Your task to perform on an android device: allow cookies in the chrome app Image 0: 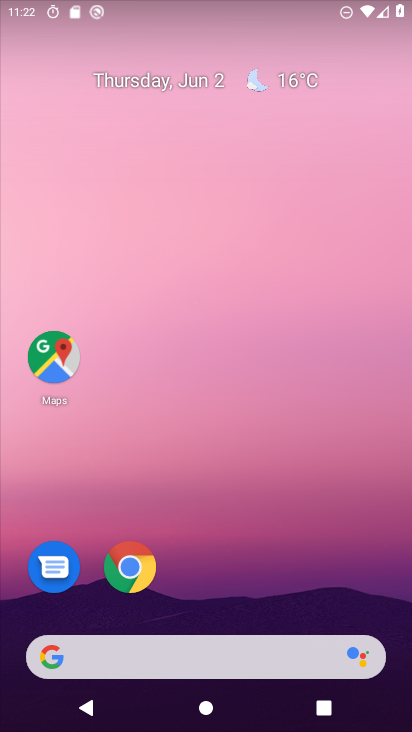
Step 0: click (130, 574)
Your task to perform on an android device: allow cookies in the chrome app Image 1: 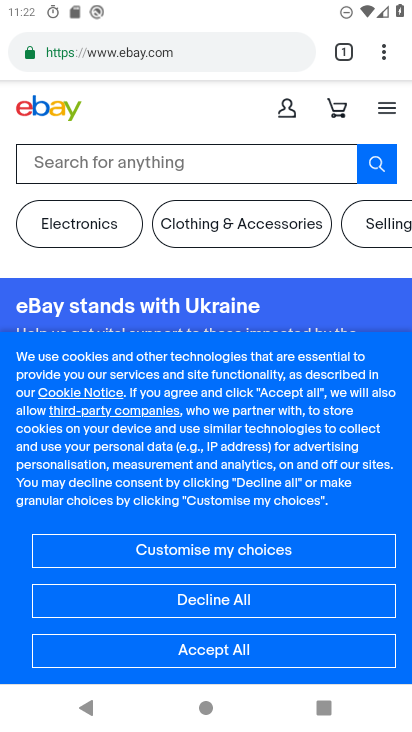
Step 1: click (379, 57)
Your task to perform on an android device: allow cookies in the chrome app Image 2: 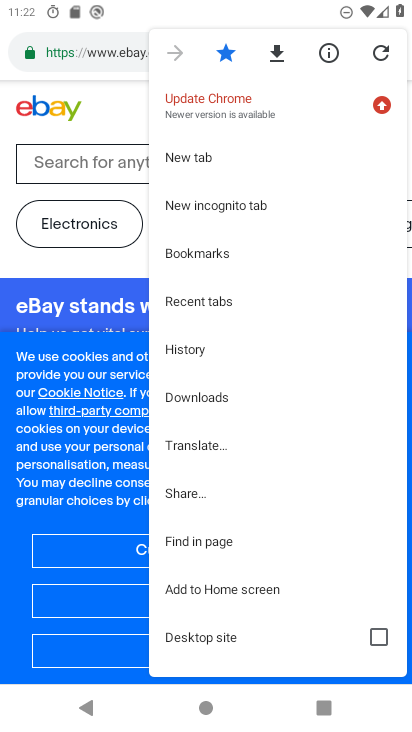
Step 2: drag from (280, 596) to (266, 295)
Your task to perform on an android device: allow cookies in the chrome app Image 3: 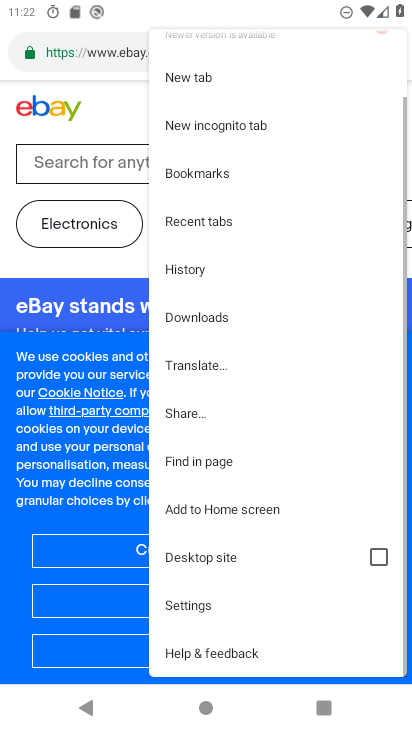
Step 3: click (207, 613)
Your task to perform on an android device: allow cookies in the chrome app Image 4: 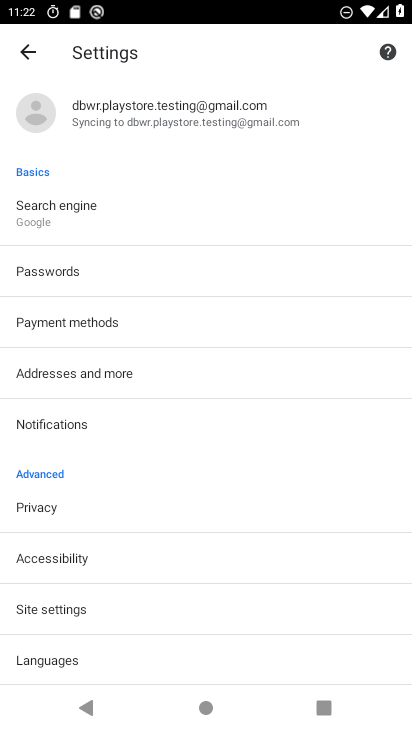
Step 4: click (72, 612)
Your task to perform on an android device: allow cookies in the chrome app Image 5: 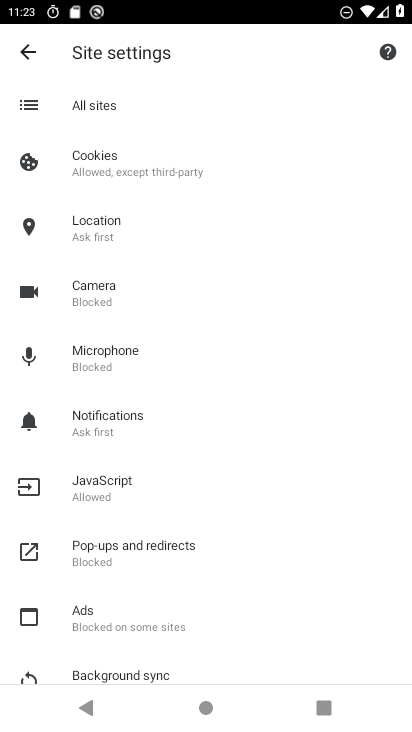
Step 5: click (175, 176)
Your task to perform on an android device: allow cookies in the chrome app Image 6: 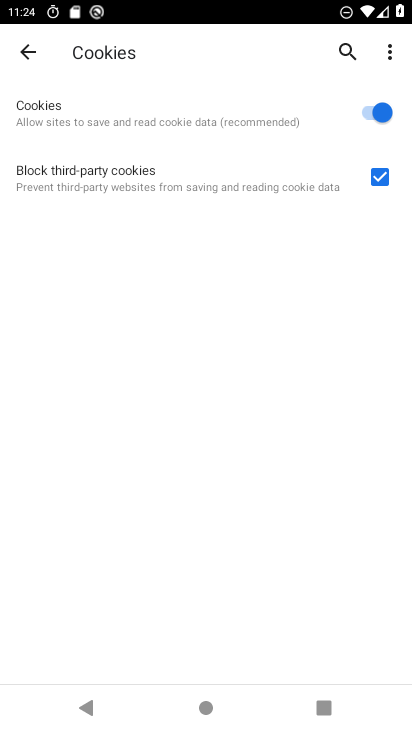
Step 6: task complete